Your task to perform on an android device: Open Google Chrome Image 0: 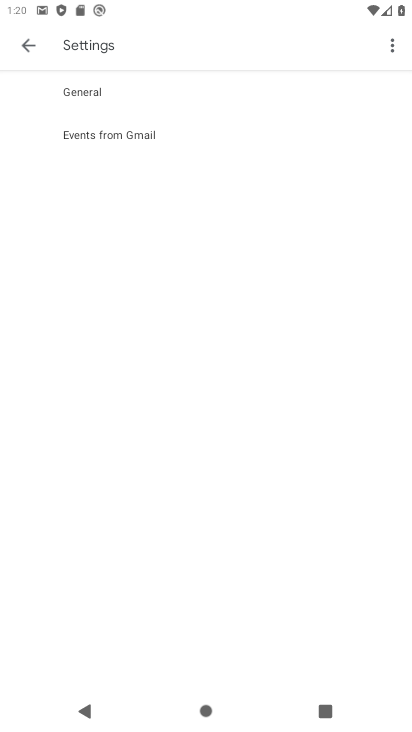
Step 0: press home button
Your task to perform on an android device: Open Google Chrome Image 1: 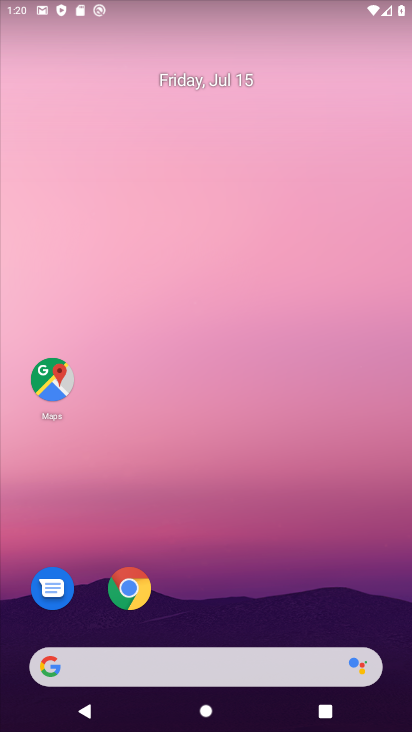
Step 1: click (130, 588)
Your task to perform on an android device: Open Google Chrome Image 2: 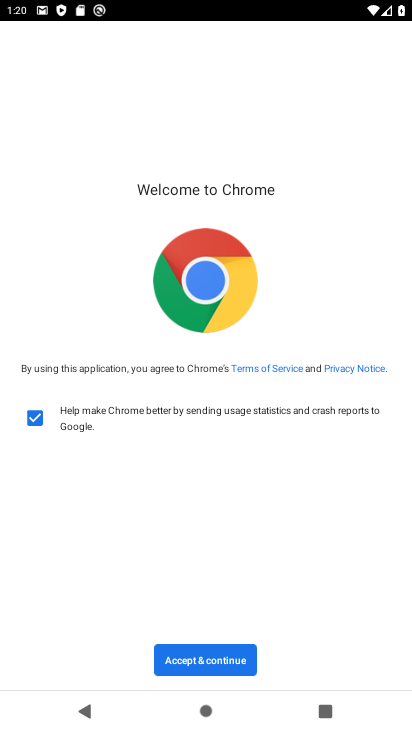
Step 2: click (190, 657)
Your task to perform on an android device: Open Google Chrome Image 3: 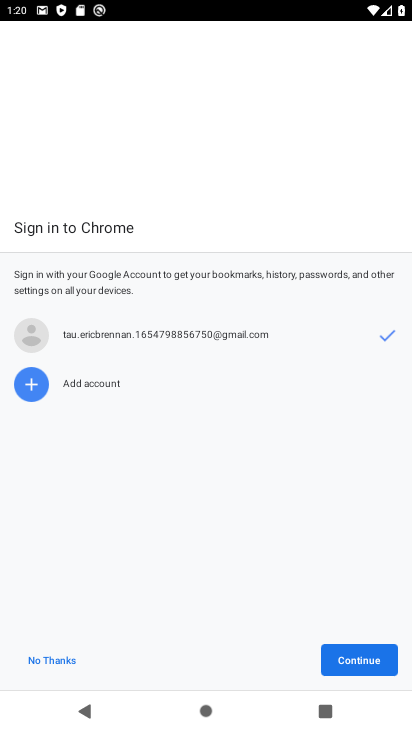
Step 3: click (345, 659)
Your task to perform on an android device: Open Google Chrome Image 4: 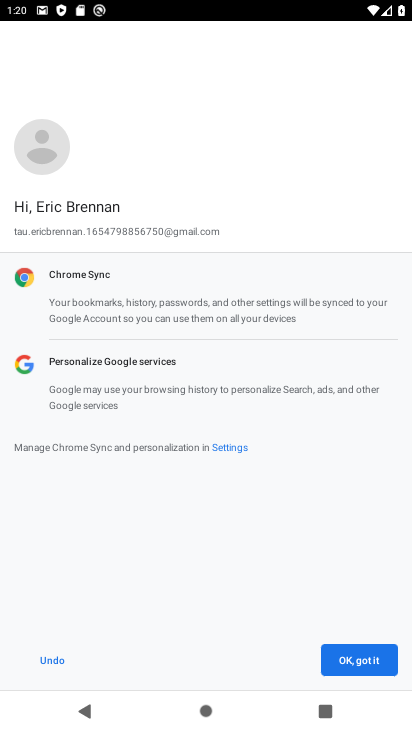
Step 4: click (359, 667)
Your task to perform on an android device: Open Google Chrome Image 5: 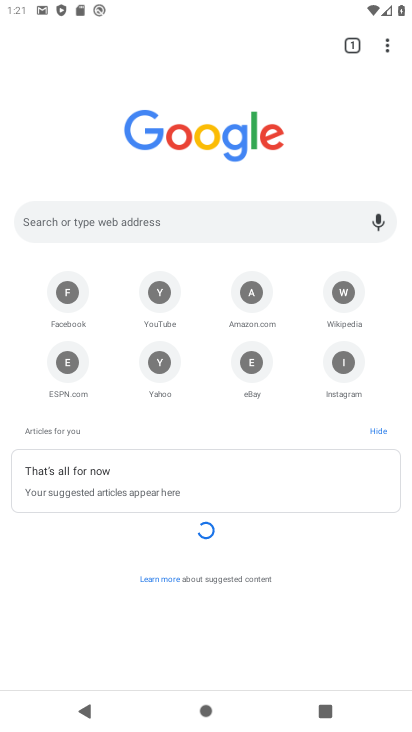
Step 5: task complete